Your task to perform on an android device: show emergency info Image 0: 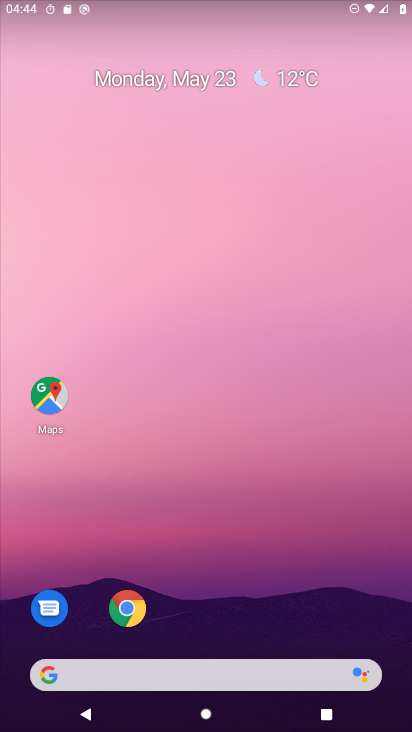
Step 0: drag from (299, 585) to (221, 16)
Your task to perform on an android device: show emergency info Image 1: 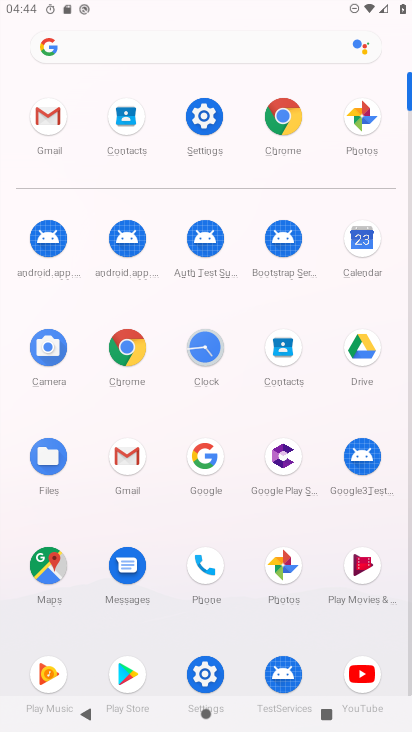
Step 1: click (205, 121)
Your task to perform on an android device: show emergency info Image 2: 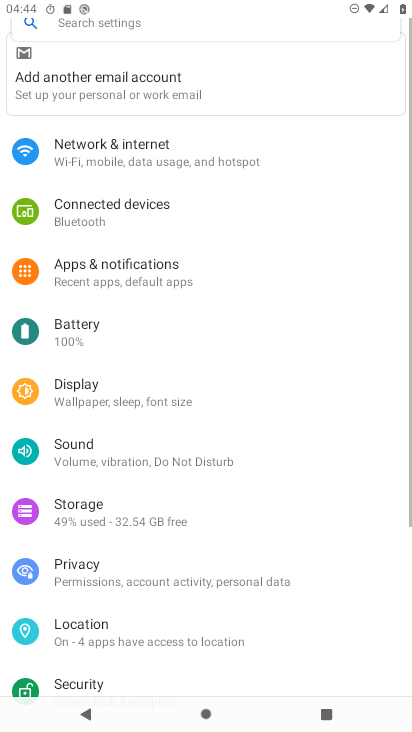
Step 2: drag from (276, 557) to (250, 5)
Your task to perform on an android device: show emergency info Image 3: 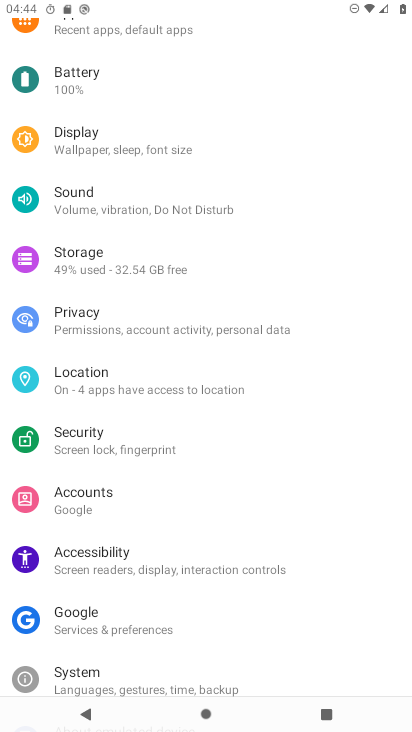
Step 3: drag from (231, 629) to (190, 179)
Your task to perform on an android device: show emergency info Image 4: 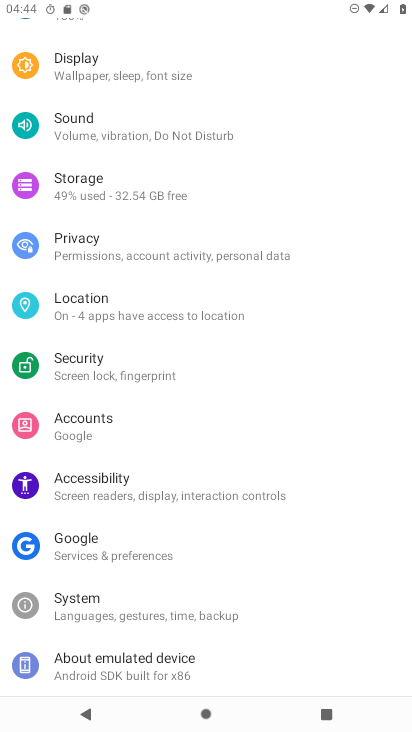
Step 4: click (182, 663)
Your task to perform on an android device: show emergency info Image 5: 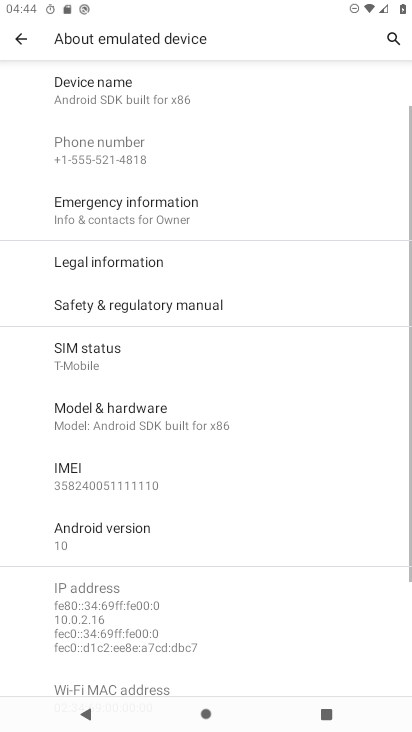
Step 5: click (174, 196)
Your task to perform on an android device: show emergency info Image 6: 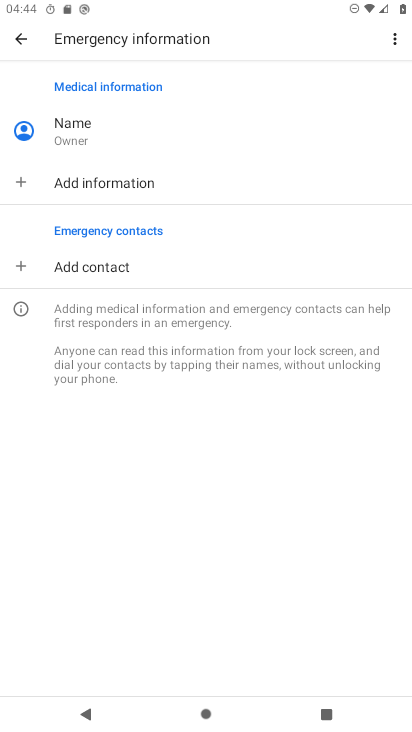
Step 6: task complete